Your task to perform on an android device: turn off sleep mode Image 0: 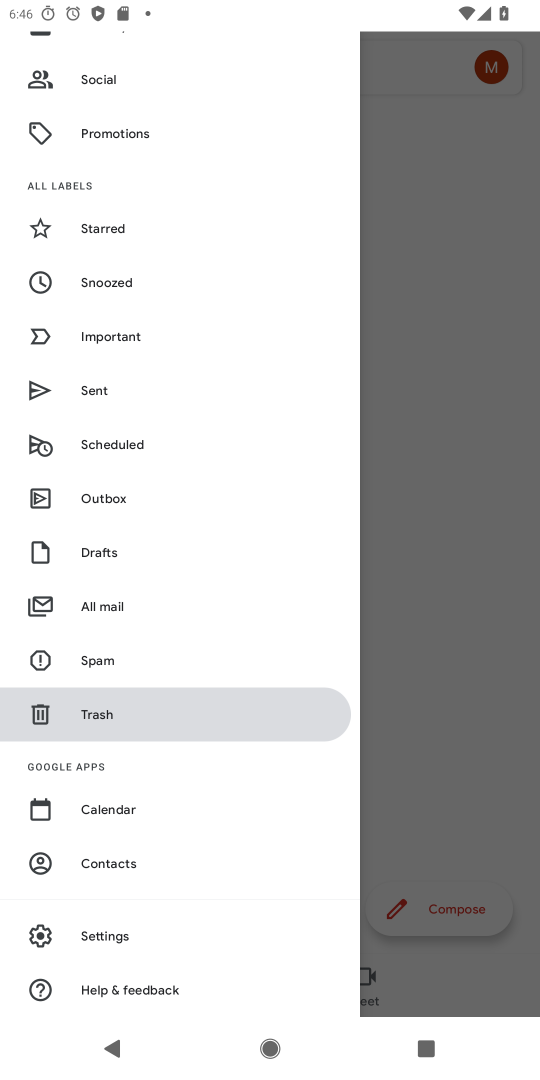
Step 0: press home button
Your task to perform on an android device: turn off sleep mode Image 1: 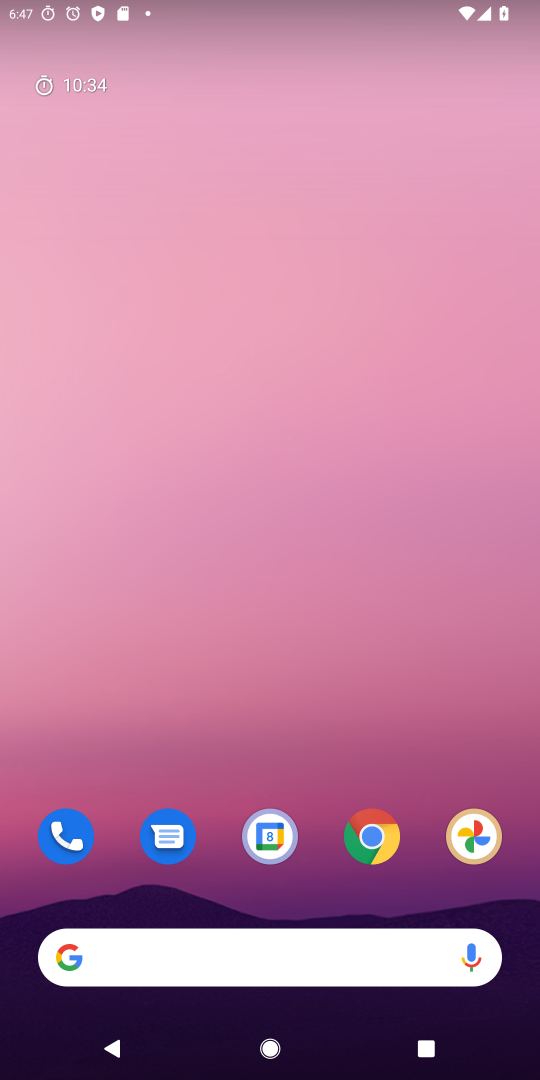
Step 1: task complete